Your task to perform on an android device: Open sound settings Image 0: 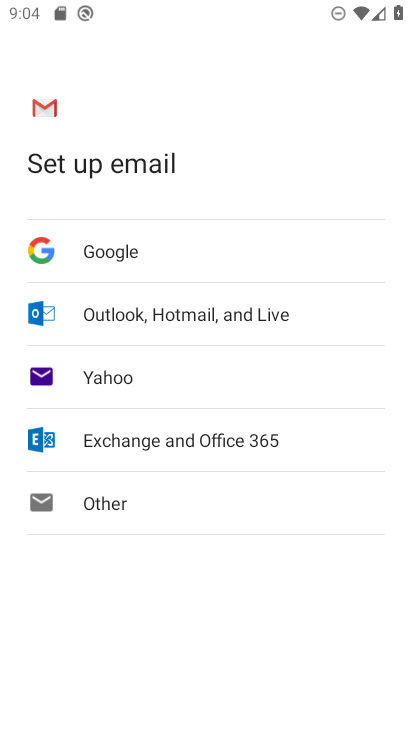
Step 0: press home button
Your task to perform on an android device: Open sound settings Image 1: 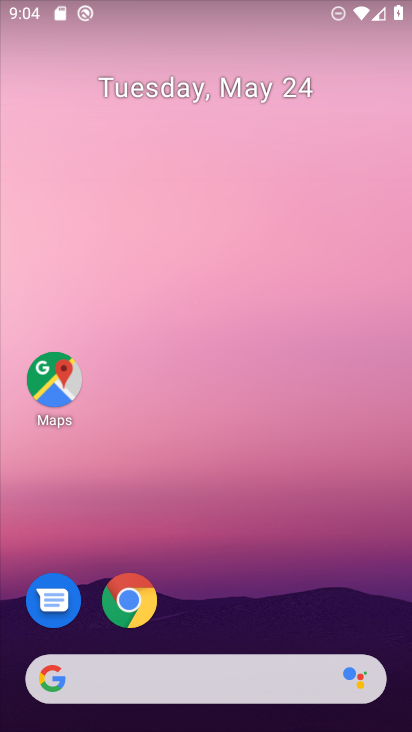
Step 1: drag from (232, 619) to (200, 97)
Your task to perform on an android device: Open sound settings Image 2: 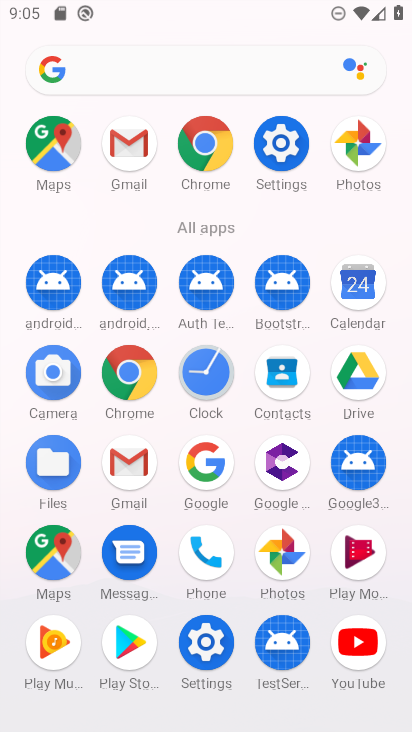
Step 2: click (204, 648)
Your task to perform on an android device: Open sound settings Image 3: 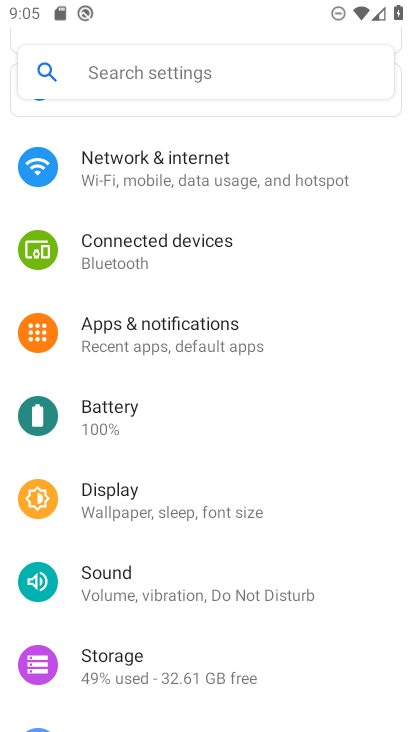
Step 3: click (176, 590)
Your task to perform on an android device: Open sound settings Image 4: 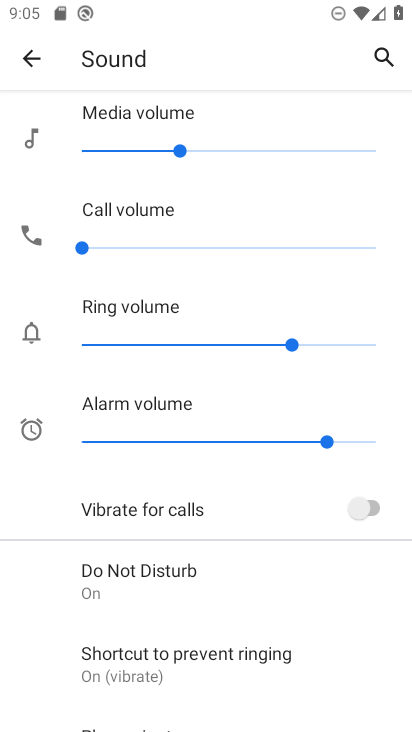
Step 4: task complete